Your task to perform on an android device: What's the weather today? Image 0: 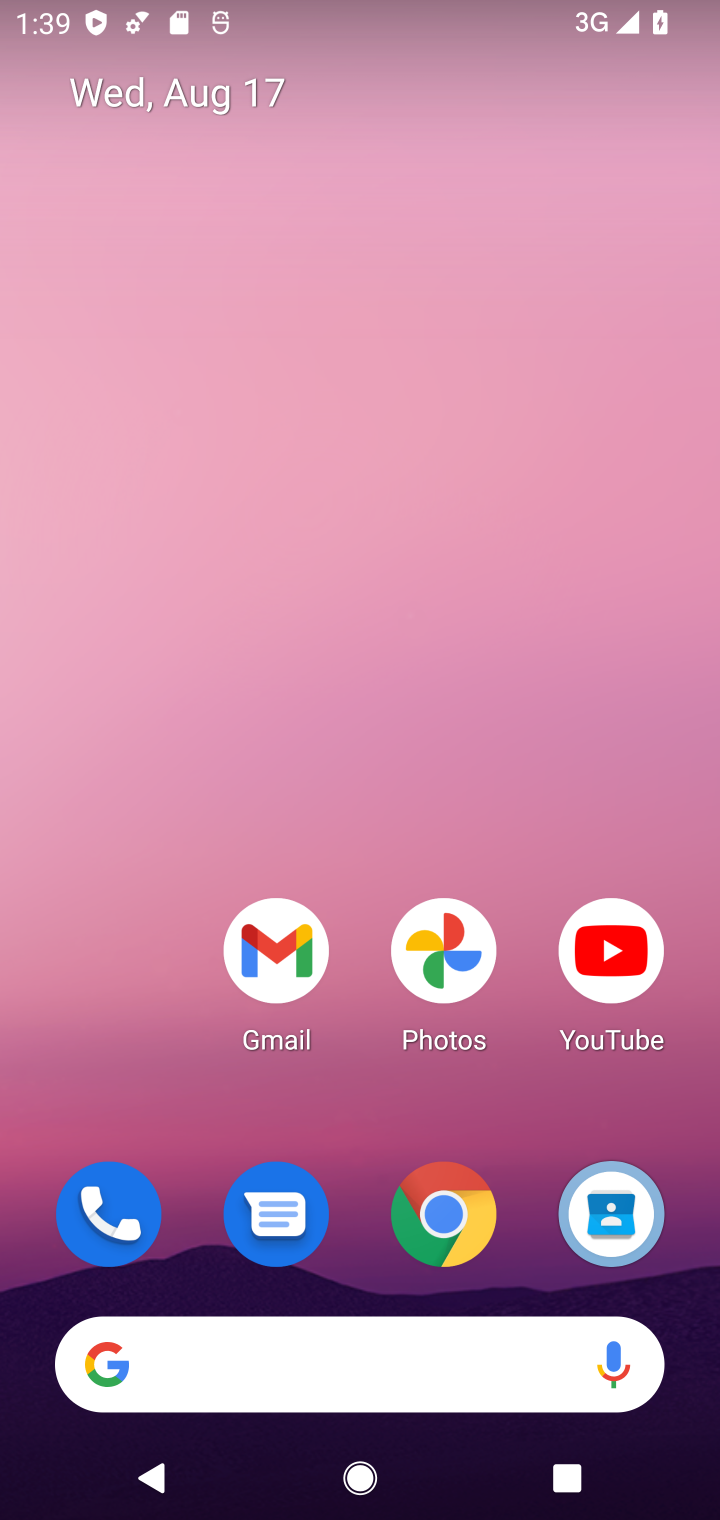
Step 0: press home button
Your task to perform on an android device: What's the weather today? Image 1: 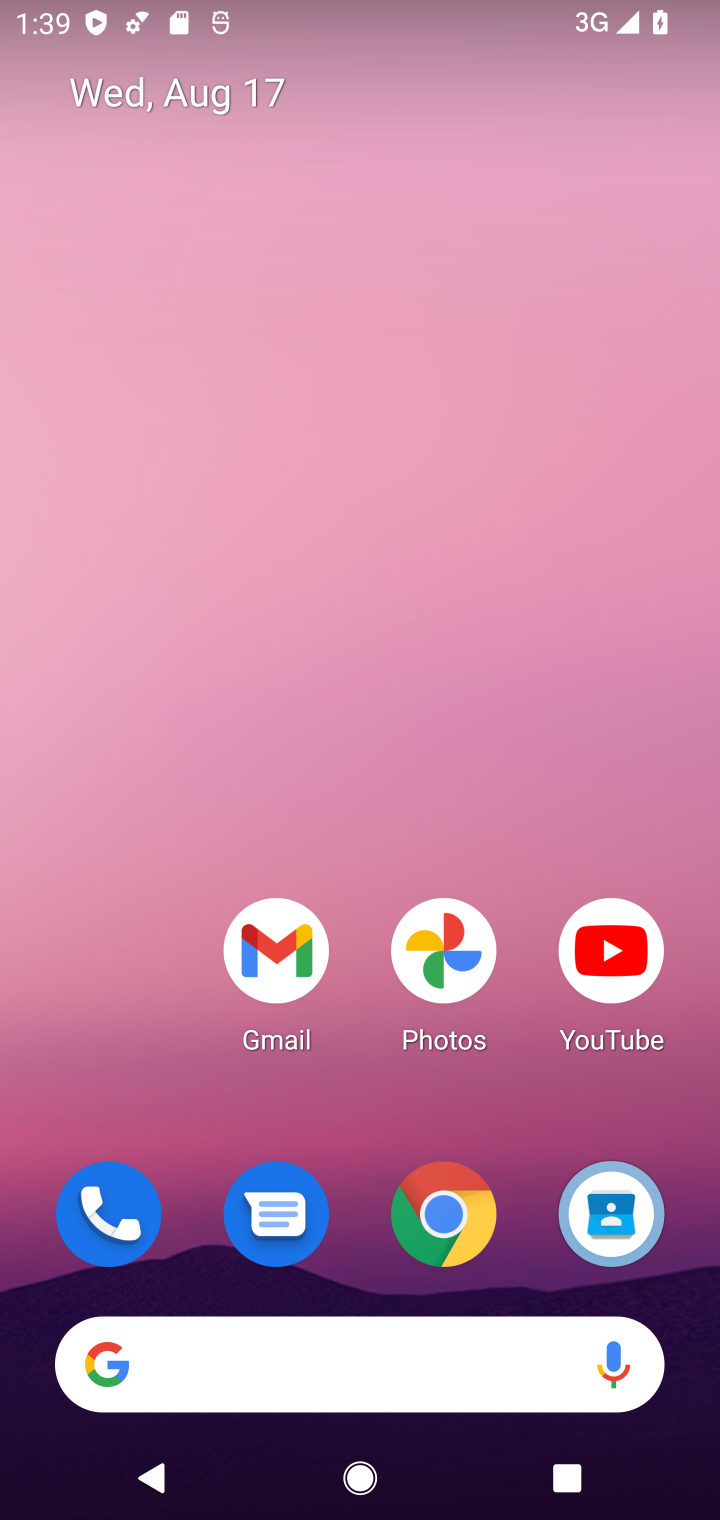
Step 1: drag from (361, 1163) to (305, 330)
Your task to perform on an android device: What's the weather today? Image 2: 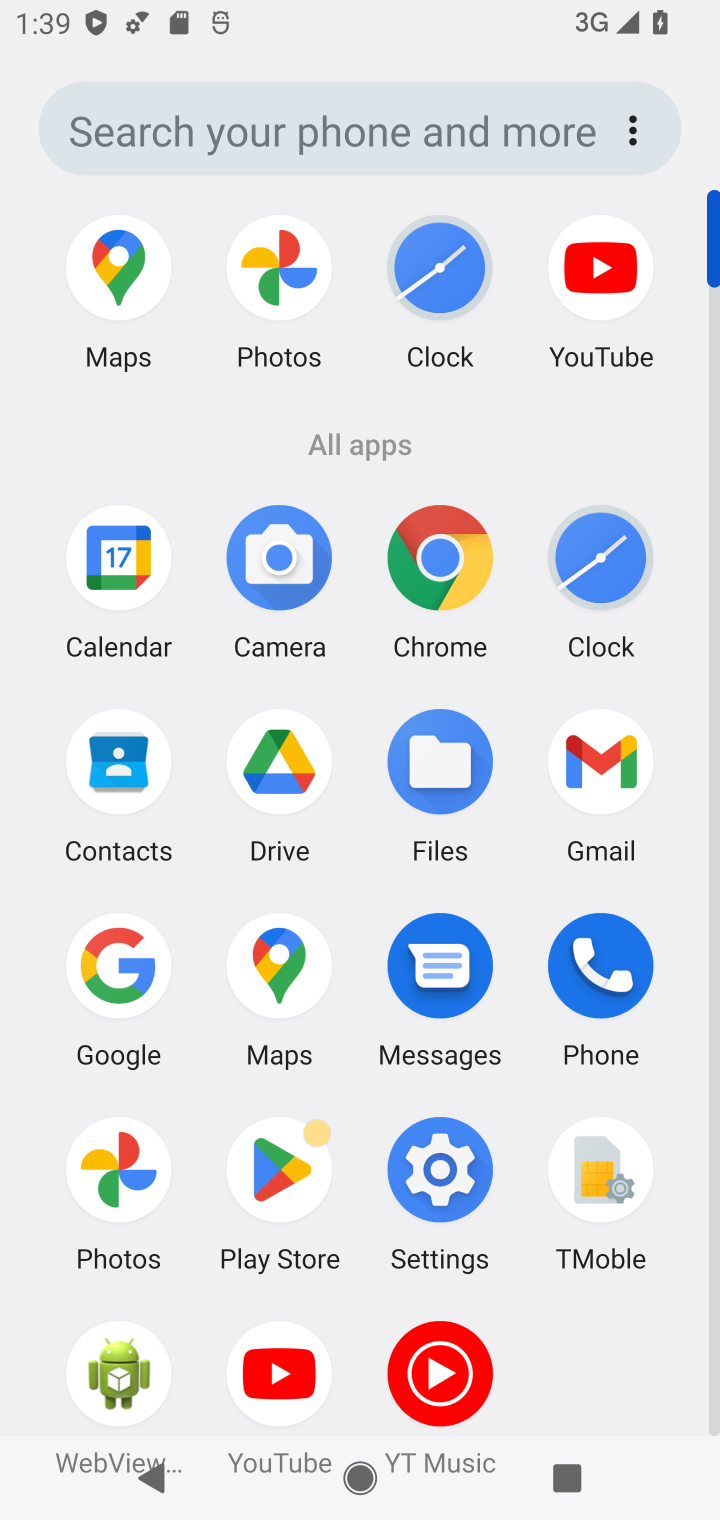
Step 2: click (121, 967)
Your task to perform on an android device: What's the weather today? Image 3: 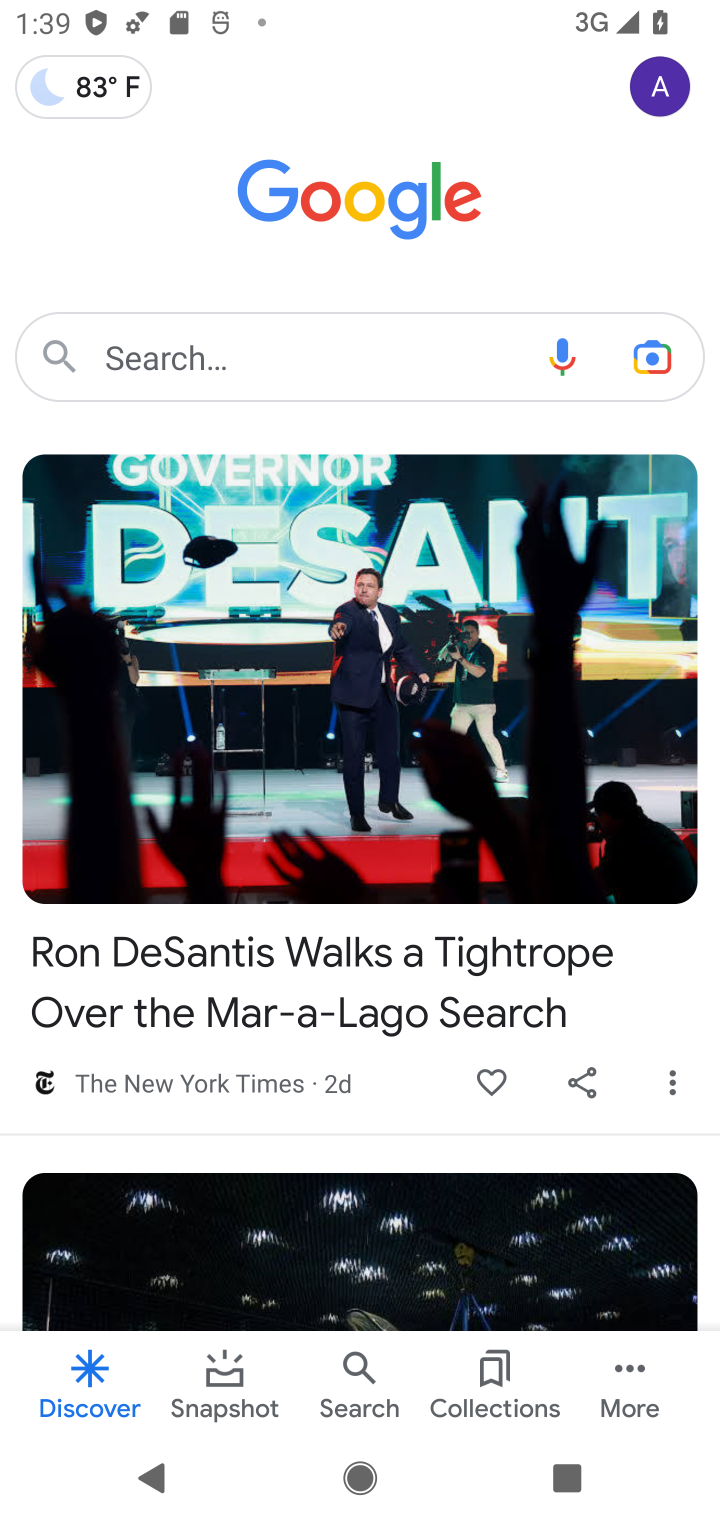
Step 3: click (70, 90)
Your task to perform on an android device: What's the weather today? Image 4: 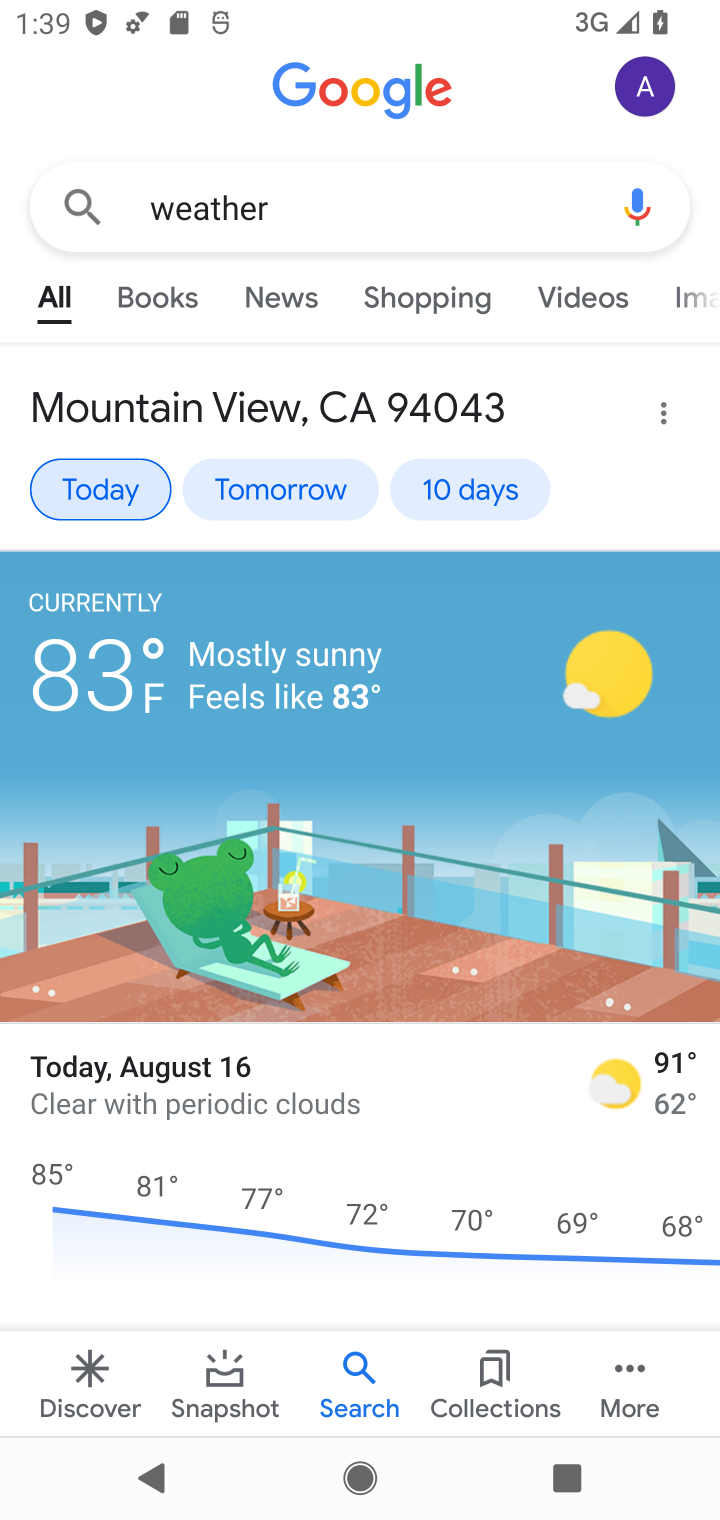
Step 4: task complete